Your task to perform on an android device: Toggle the flashlight Image 0: 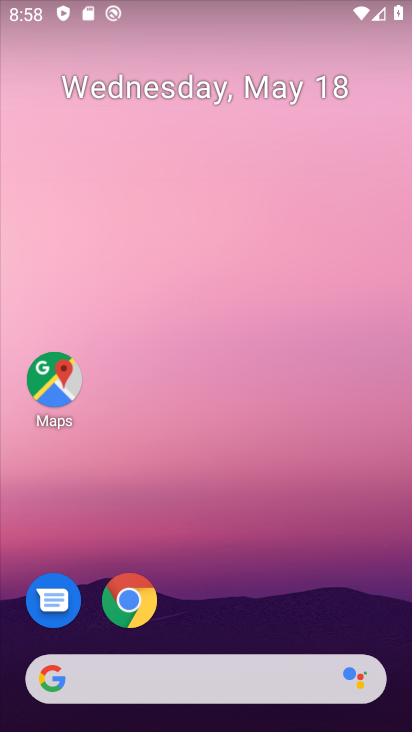
Step 0: drag from (65, 534) to (376, 176)
Your task to perform on an android device: Toggle the flashlight Image 1: 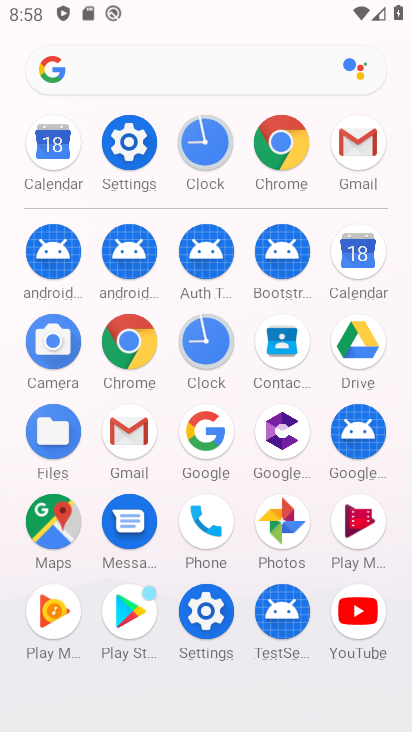
Step 1: click (141, 148)
Your task to perform on an android device: Toggle the flashlight Image 2: 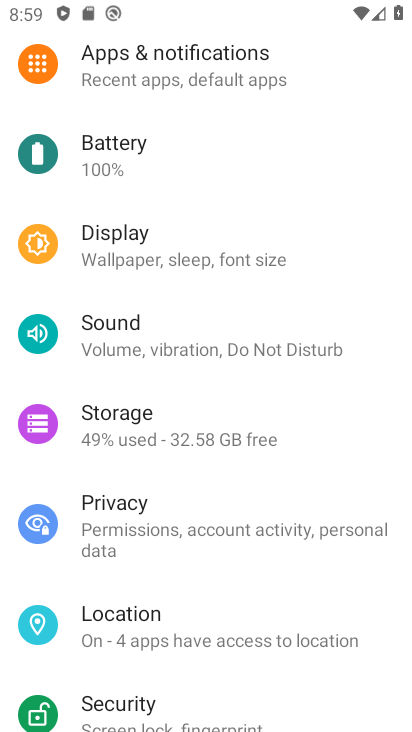
Step 2: click (172, 299)
Your task to perform on an android device: Toggle the flashlight Image 3: 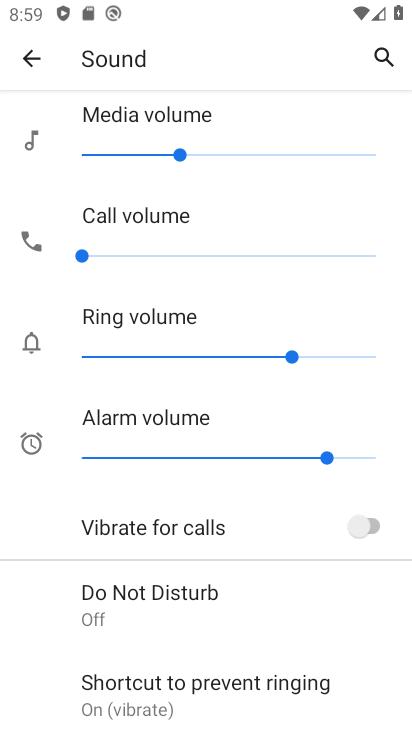
Step 3: task complete